Your task to perform on an android device: refresh tabs in the chrome app Image 0: 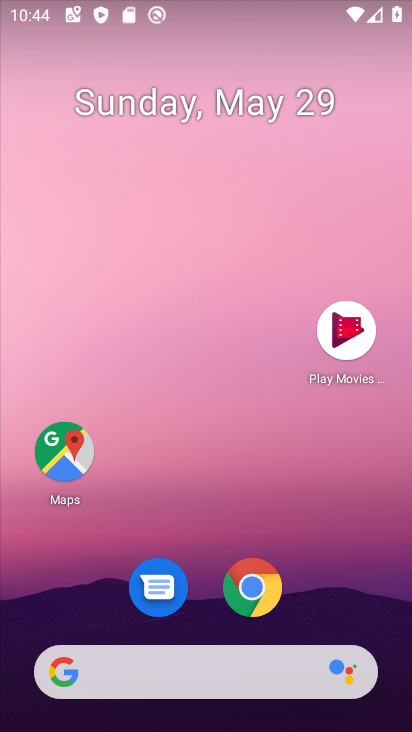
Step 0: click (267, 596)
Your task to perform on an android device: refresh tabs in the chrome app Image 1: 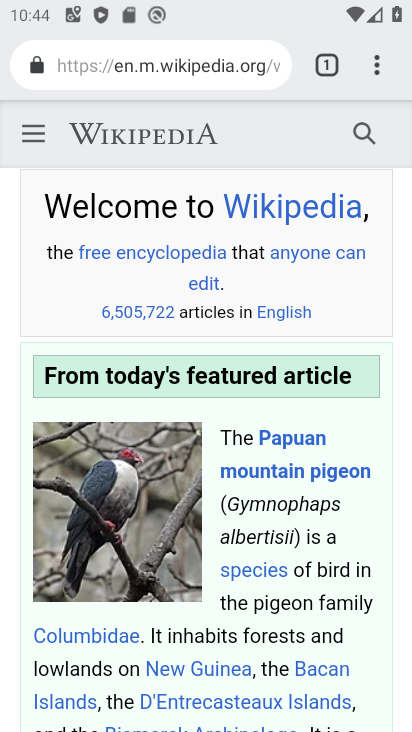
Step 1: click (379, 53)
Your task to perform on an android device: refresh tabs in the chrome app Image 2: 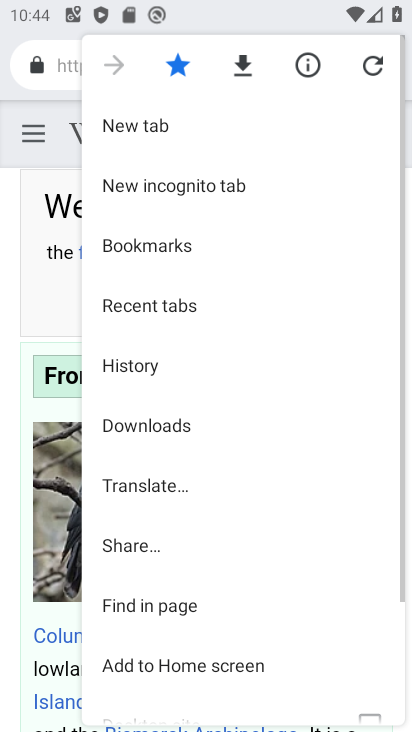
Step 2: click (372, 66)
Your task to perform on an android device: refresh tabs in the chrome app Image 3: 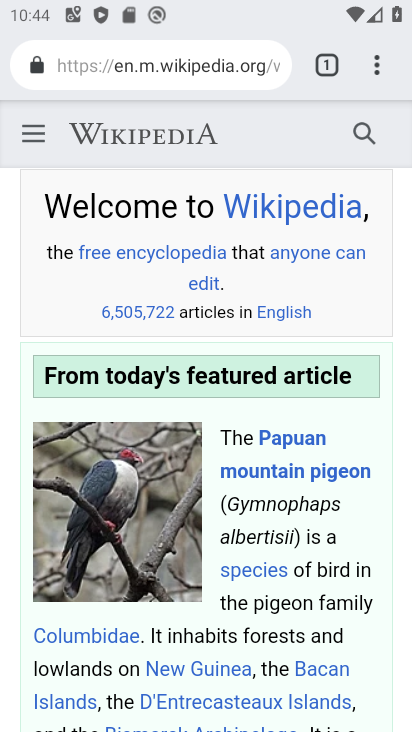
Step 3: task complete